Your task to perform on an android device: Open Amazon Image 0: 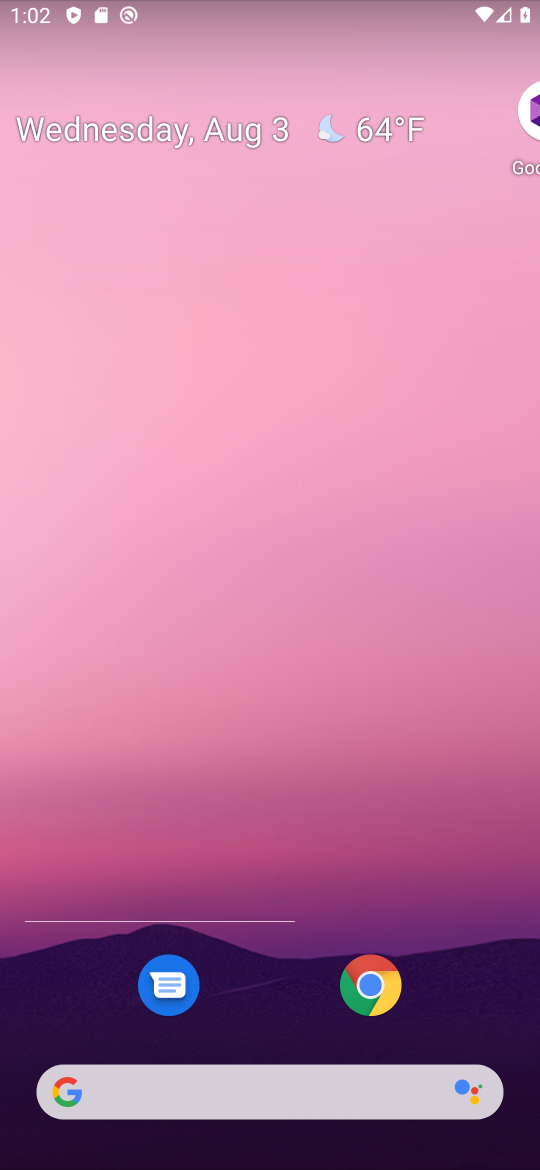
Step 0: press home button
Your task to perform on an android device: Open Amazon Image 1: 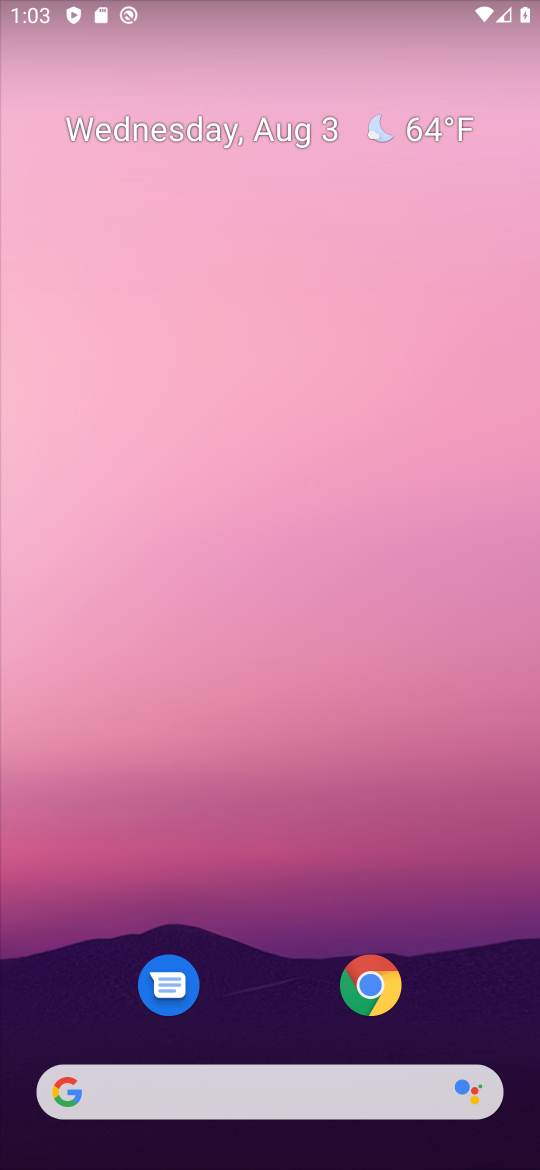
Step 1: drag from (268, 1028) to (286, 203)
Your task to perform on an android device: Open Amazon Image 2: 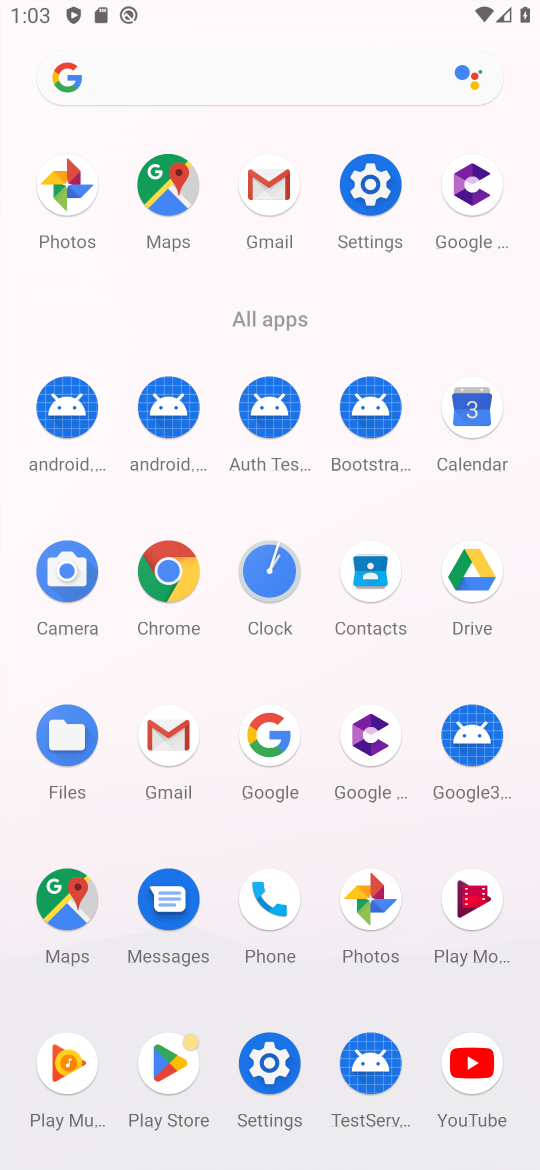
Step 2: click (165, 567)
Your task to perform on an android device: Open Amazon Image 3: 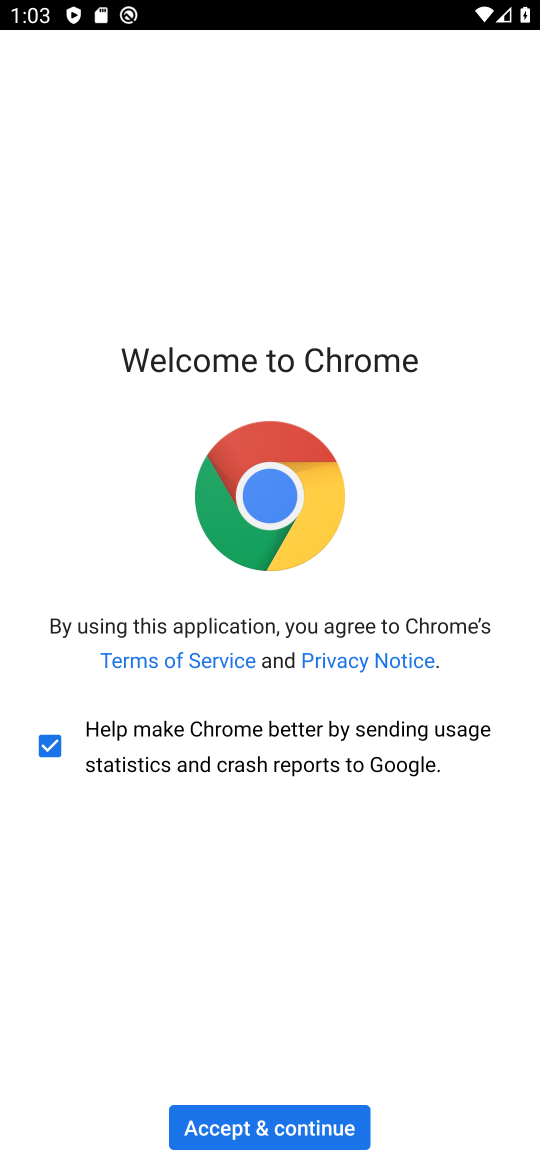
Step 3: click (258, 1123)
Your task to perform on an android device: Open Amazon Image 4: 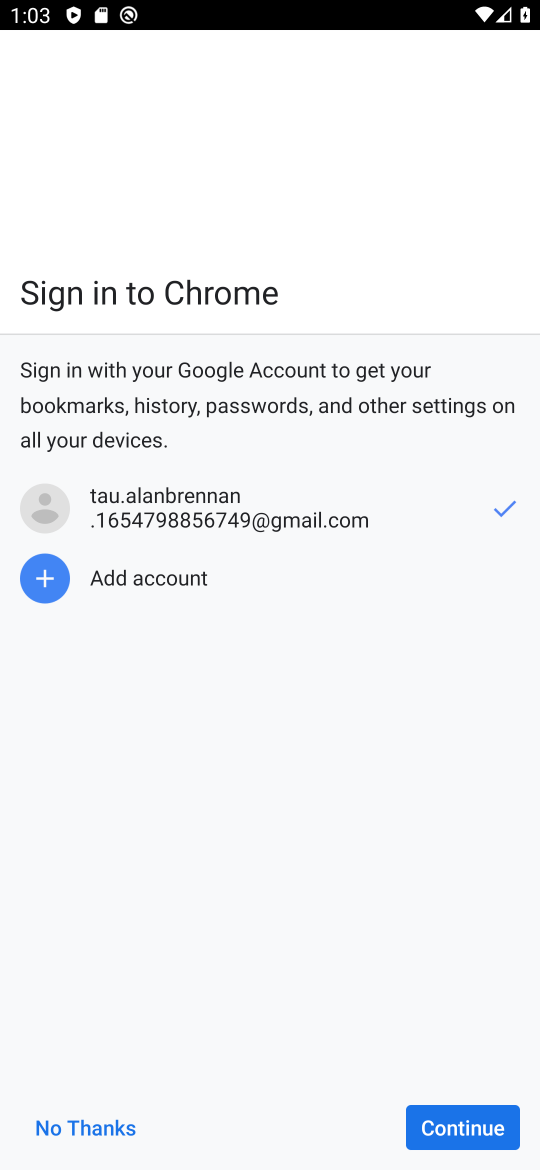
Step 4: click (470, 1123)
Your task to perform on an android device: Open Amazon Image 5: 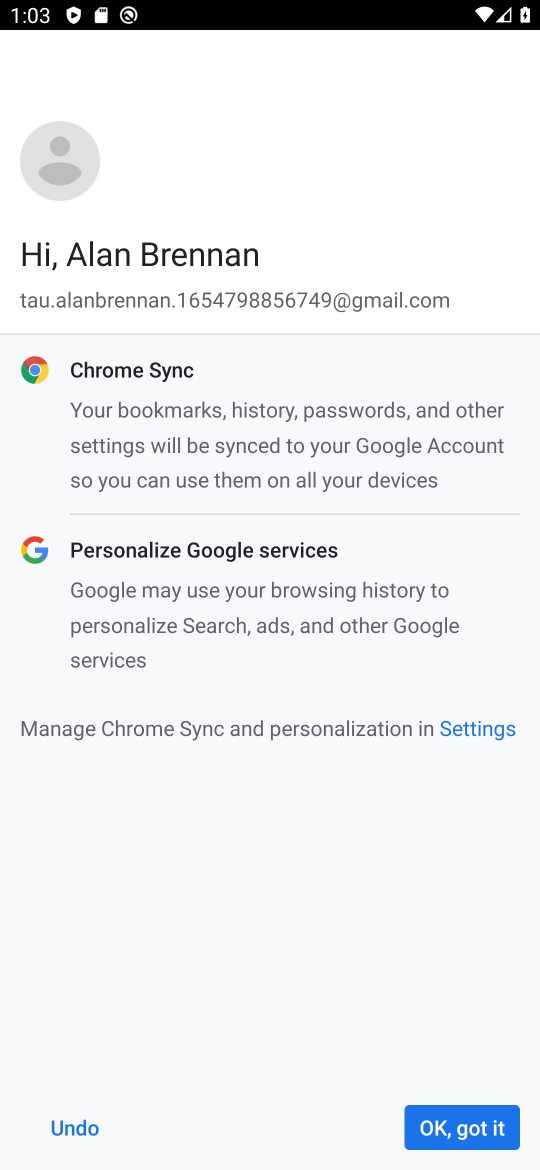
Step 5: click (461, 1128)
Your task to perform on an android device: Open Amazon Image 6: 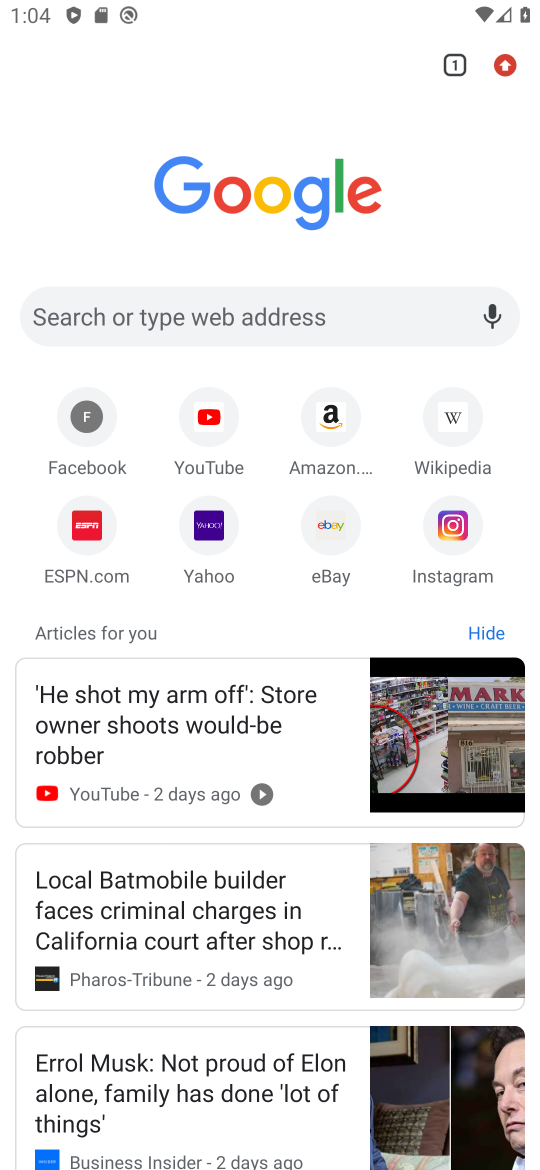
Step 6: click (336, 417)
Your task to perform on an android device: Open Amazon Image 7: 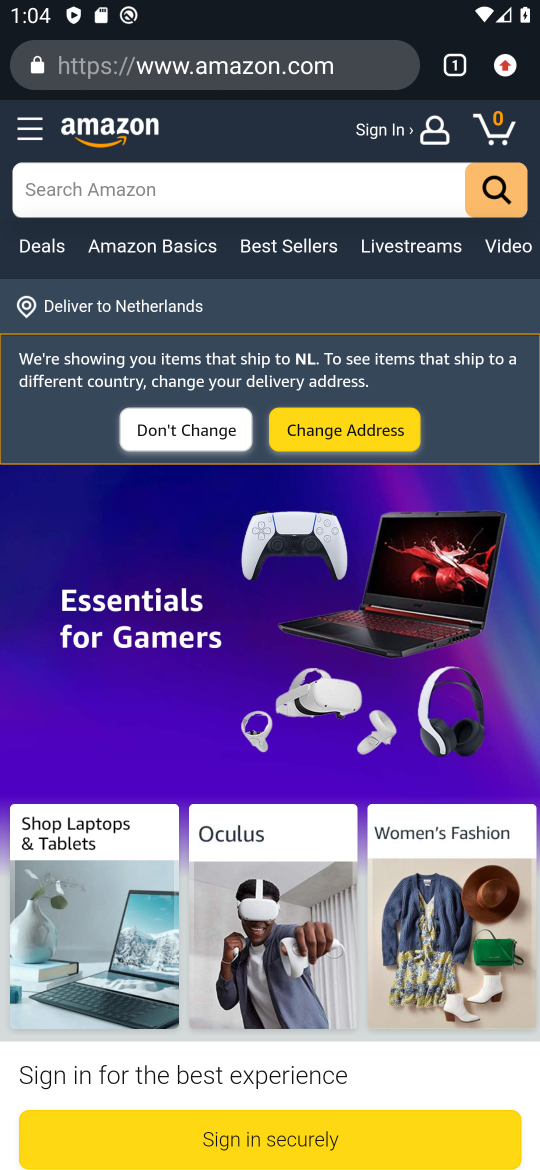
Step 7: task complete